Your task to perform on an android device: Search for vegetarian restaurants on Maps Image 0: 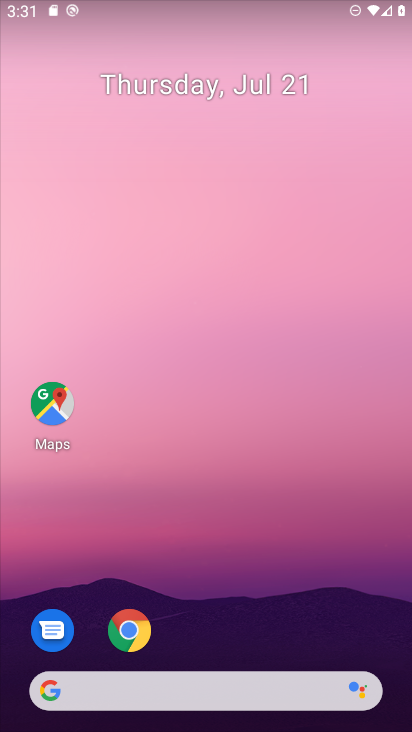
Step 0: click (62, 417)
Your task to perform on an android device: Search for vegetarian restaurants on Maps Image 1: 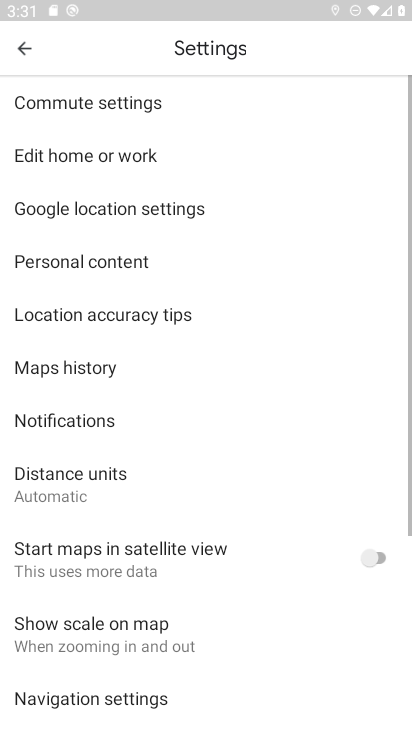
Step 1: click (27, 35)
Your task to perform on an android device: Search for vegetarian restaurants on Maps Image 2: 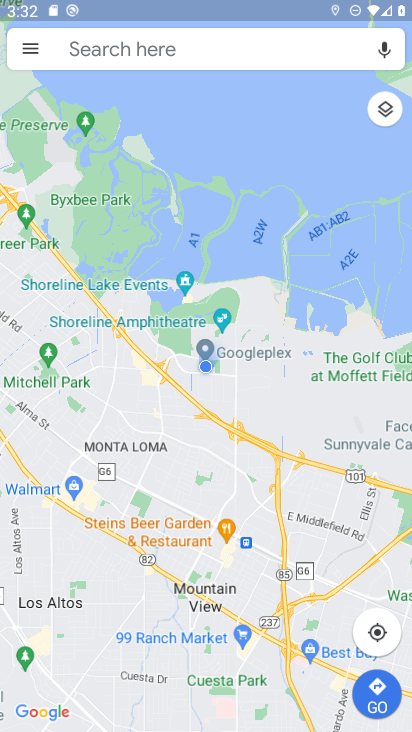
Step 2: click (188, 52)
Your task to perform on an android device: Search for vegetarian restaurants on Maps Image 3: 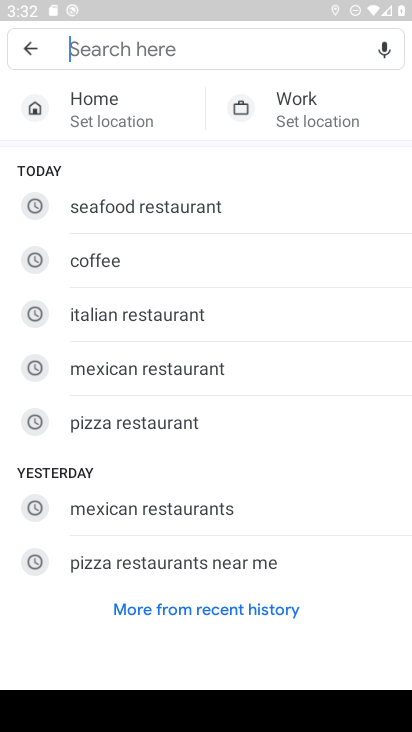
Step 3: click (125, 44)
Your task to perform on an android device: Search for vegetarian restaurants on Maps Image 4: 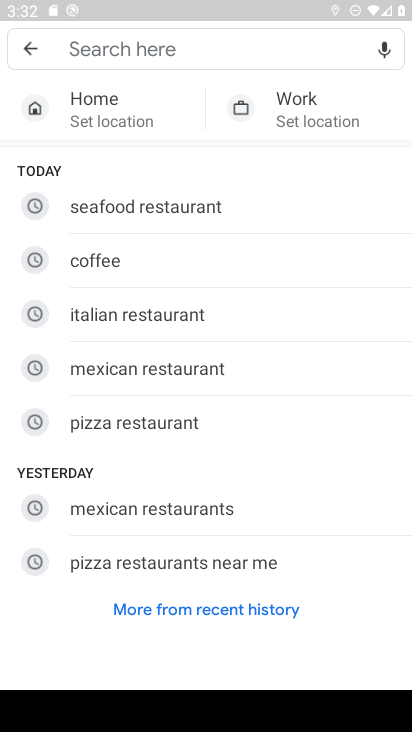
Step 4: type "vegetarian restaurants"
Your task to perform on an android device: Search for vegetarian restaurants on Maps Image 5: 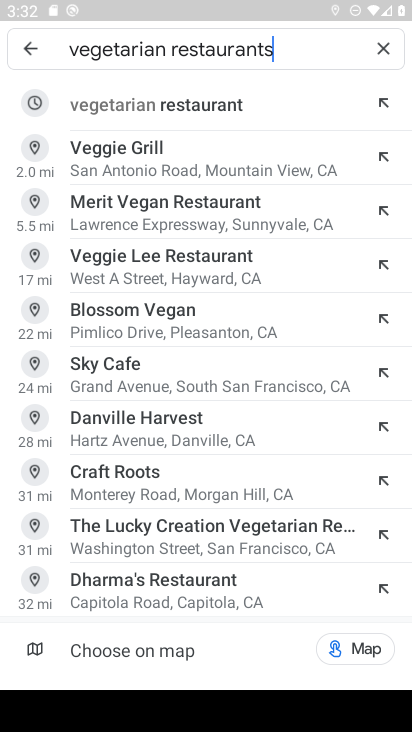
Step 5: click (184, 89)
Your task to perform on an android device: Search for vegetarian restaurants on Maps Image 6: 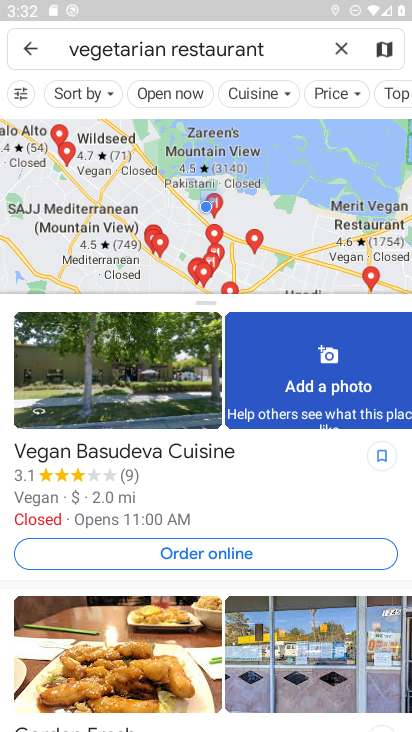
Step 6: task complete